Your task to perform on an android device: Open Wikipedia Image 0: 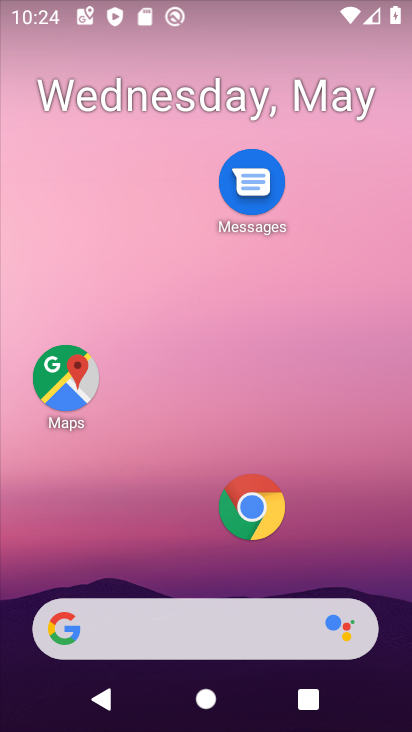
Step 0: press home button
Your task to perform on an android device: Open Wikipedia Image 1: 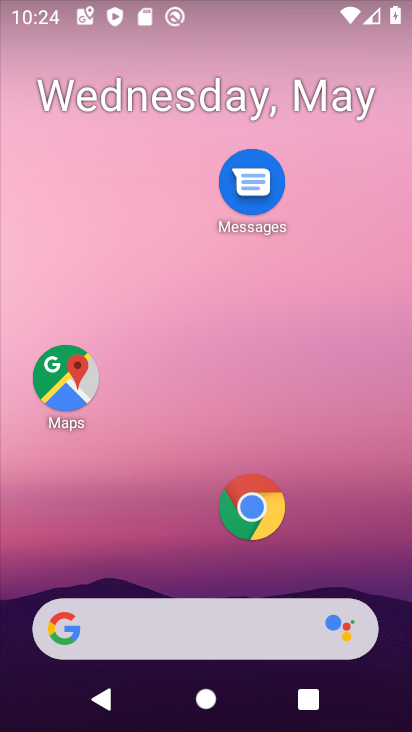
Step 1: drag from (198, 575) to (199, 77)
Your task to perform on an android device: Open Wikipedia Image 2: 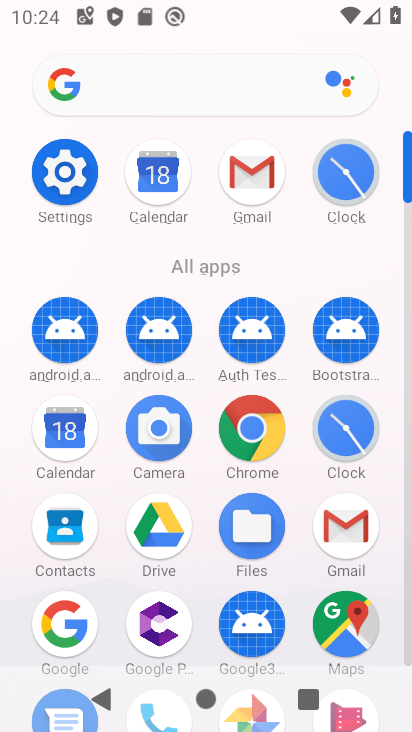
Step 2: click (253, 421)
Your task to perform on an android device: Open Wikipedia Image 3: 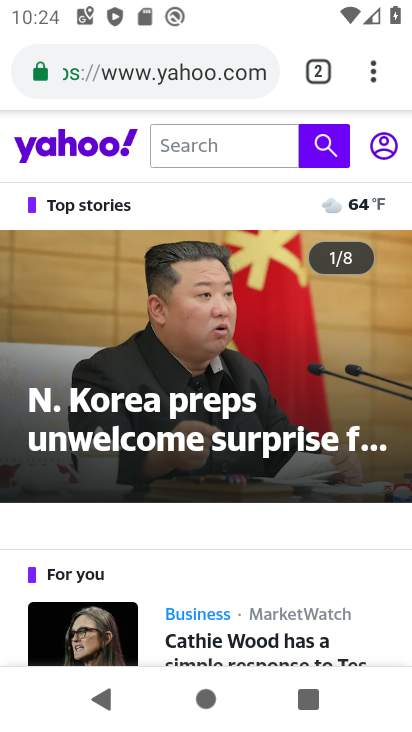
Step 3: click (315, 69)
Your task to perform on an android device: Open Wikipedia Image 4: 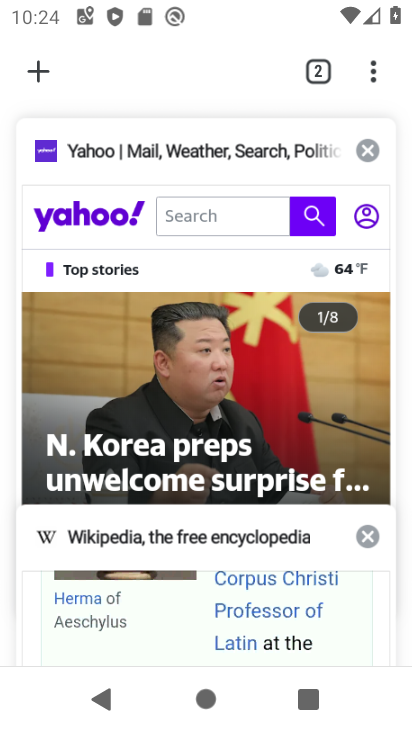
Step 4: click (198, 614)
Your task to perform on an android device: Open Wikipedia Image 5: 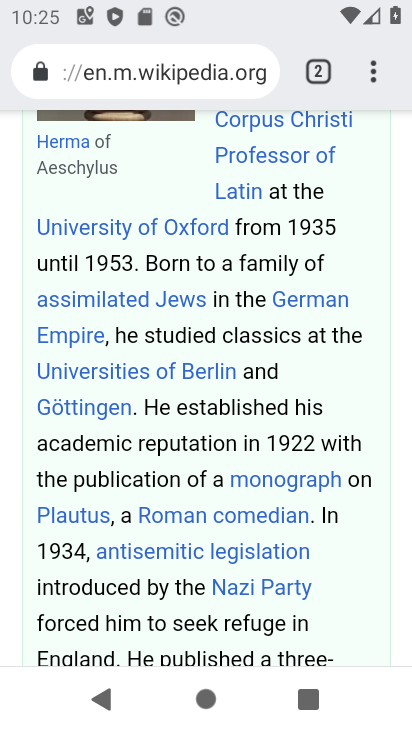
Step 5: task complete